Your task to perform on an android device: Open Android settings Image 0: 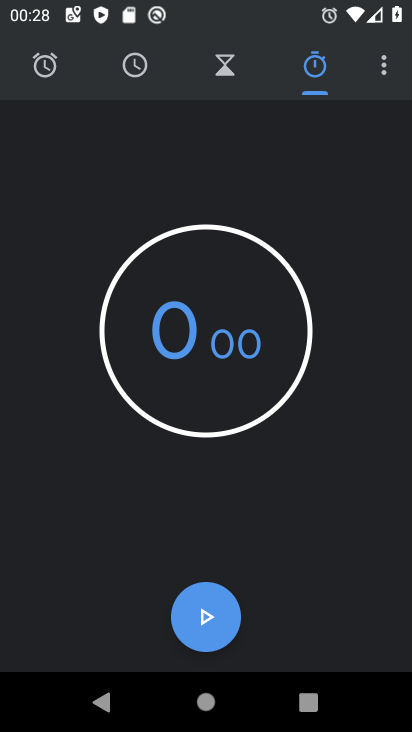
Step 0: press home button
Your task to perform on an android device: Open Android settings Image 1: 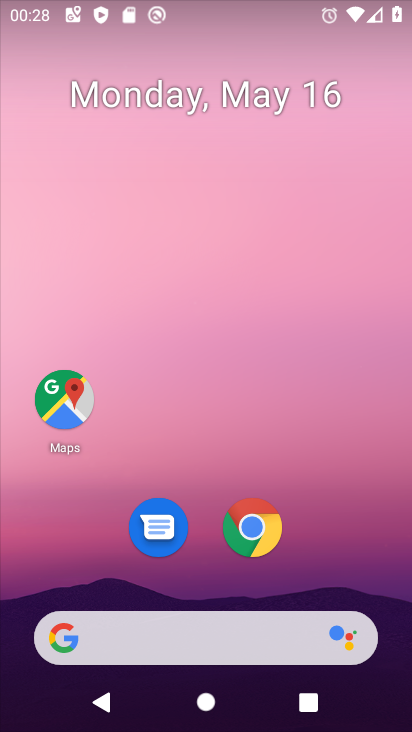
Step 1: drag from (347, 550) to (331, 138)
Your task to perform on an android device: Open Android settings Image 2: 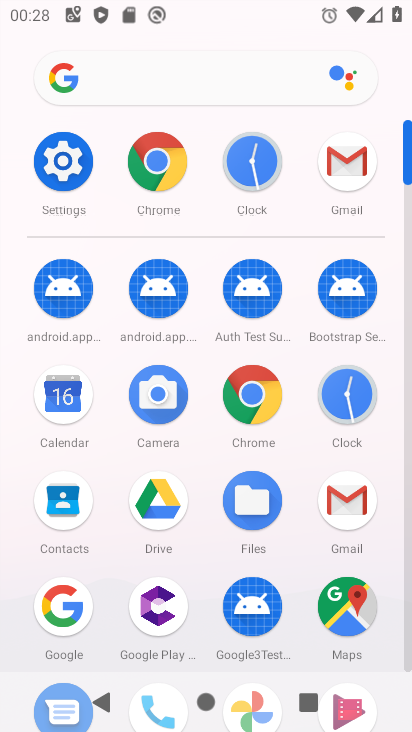
Step 2: click (69, 164)
Your task to perform on an android device: Open Android settings Image 3: 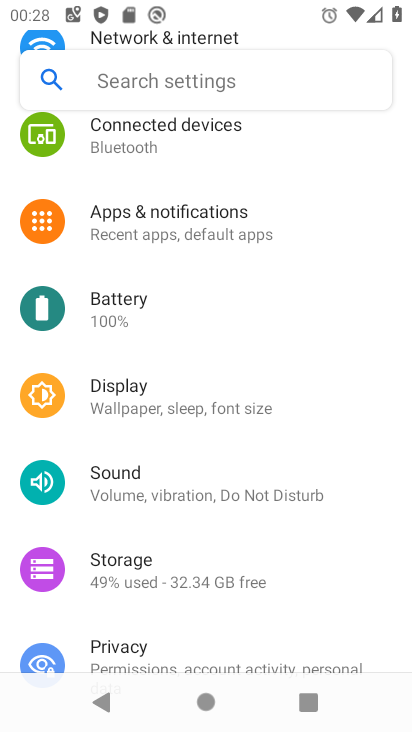
Step 3: task complete